Your task to perform on an android device: check google app version Image 0: 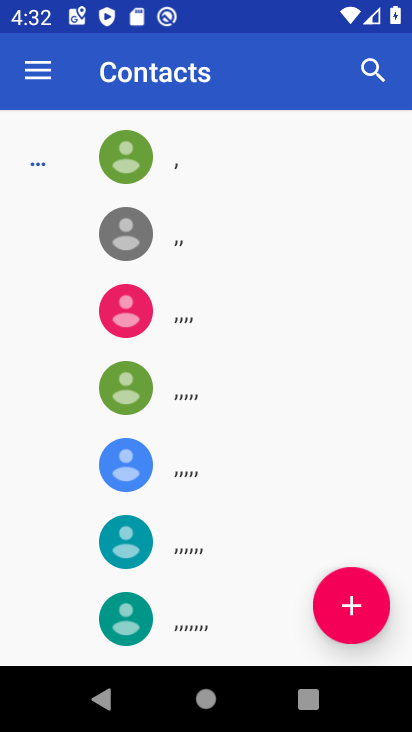
Step 0: press back button
Your task to perform on an android device: check google app version Image 1: 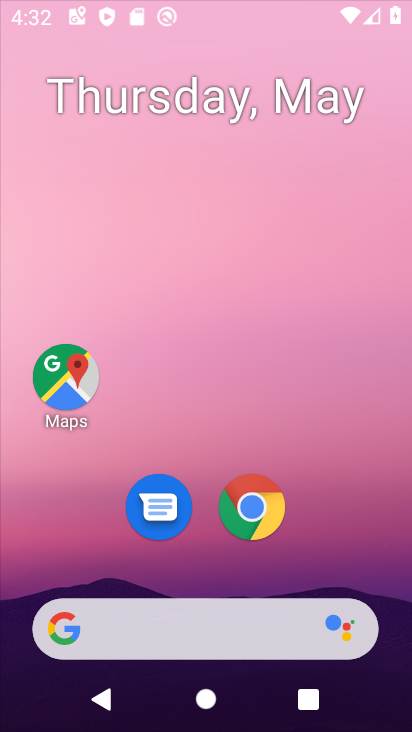
Step 1: click (166, 70)
Your task to perform on an android device: check google app version Image 2: 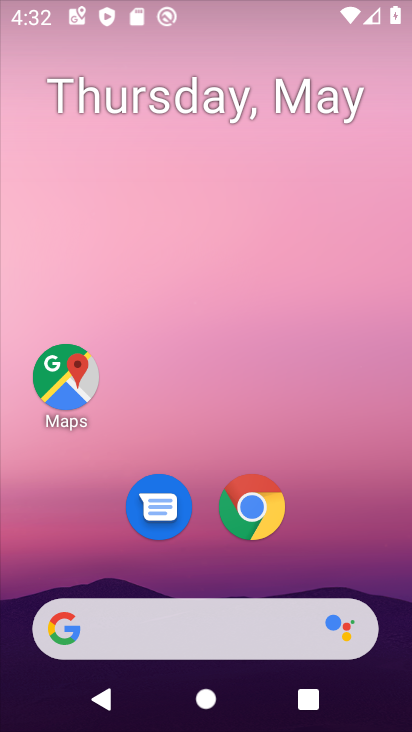
Step 2: click (166, 70)
Your task to perform on an android device: check google app version Image 3: 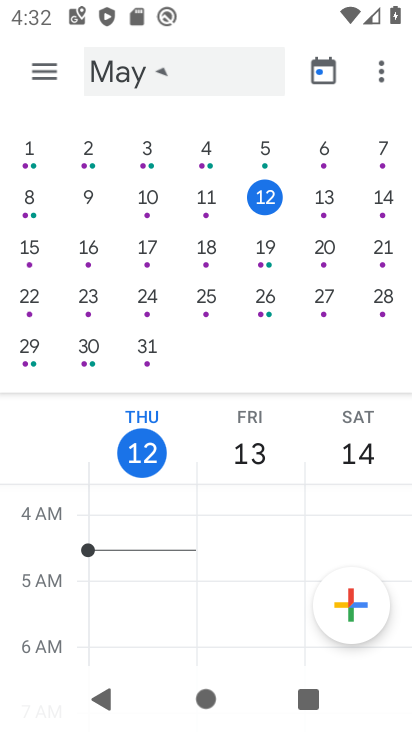
Step 3: click (166, 70)
Your task to perform on an android device: check google app version Image 4: 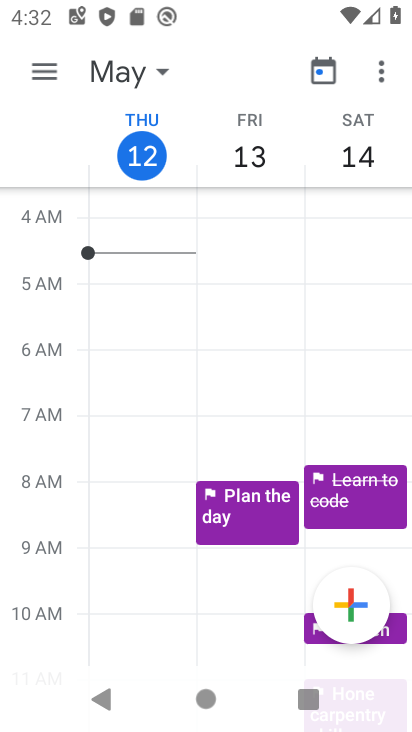
Step 4: press home button
Your task to perform on an android device: check google app version Image 5: 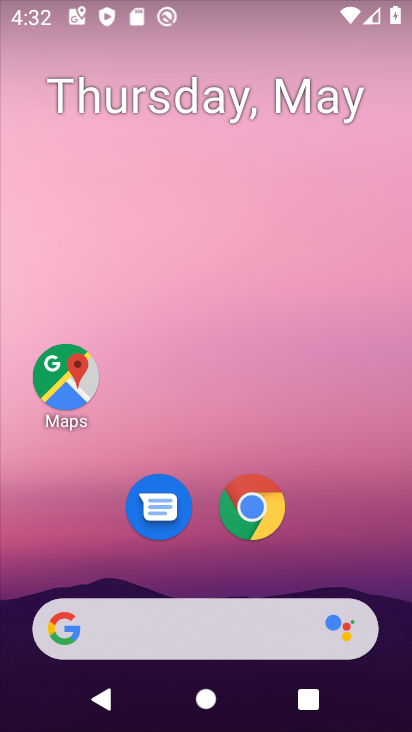
Step 5: drag from (241, 415) to (146, 137)
Your task to perform on an android device: check google app version Image 6: 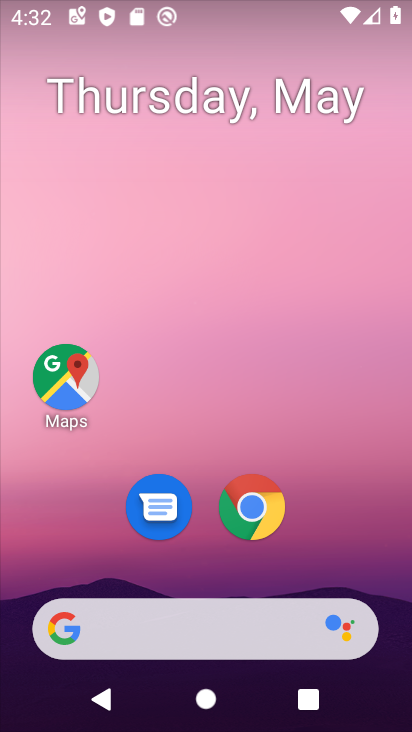
Step 6: press back button
Your task to perform on an android device: check google app version Image 7: 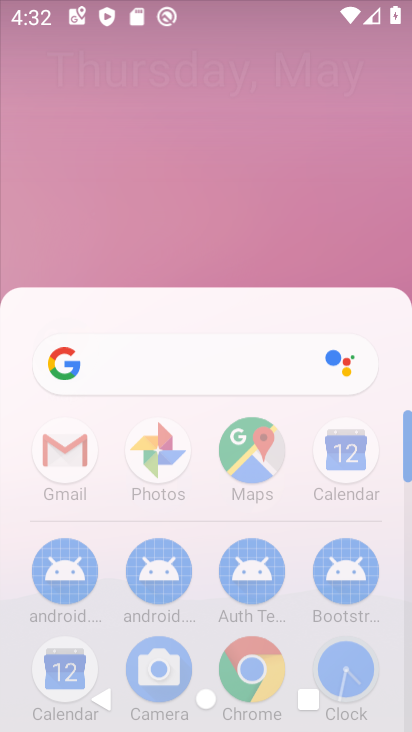
Step 7: drag from (190, 209) to (149, 126)
Your task to perform on an android device: check google app version Image 8: 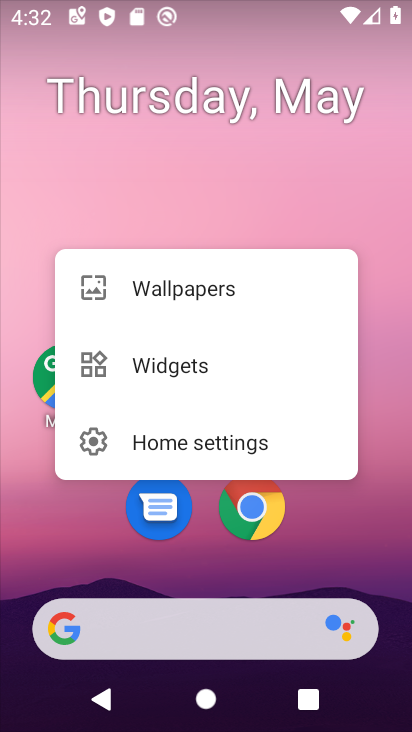
Step 8: drag from (261, 407) to (114, 3)
Your task to perform on an android device: check google app version Image 9: 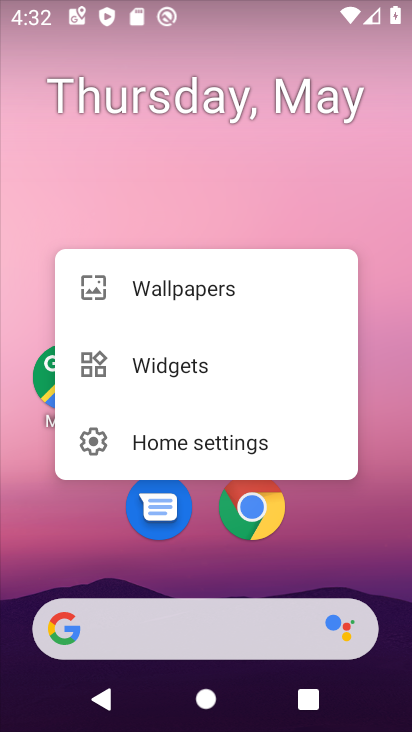
Step 9: drag from (357, 497) to (312, 158)
Your task to perform on an android device: check google app version Image 10: 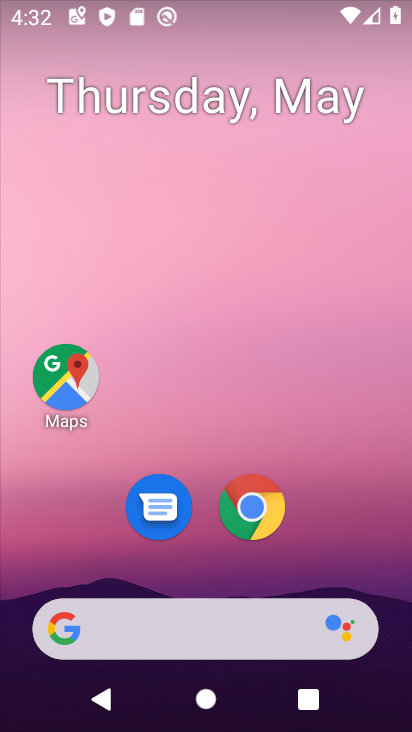
Step 10: drag from (374, 471) to (115, 62)
Your task to perform on an android device: check google app version Image 11: 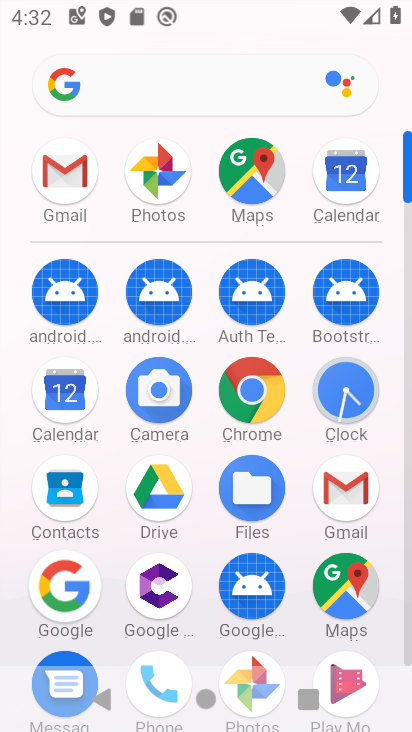
Step 11: drag from (229, 415) to (139, 82)
Your task to perform on an android device: check google app version Image 12: 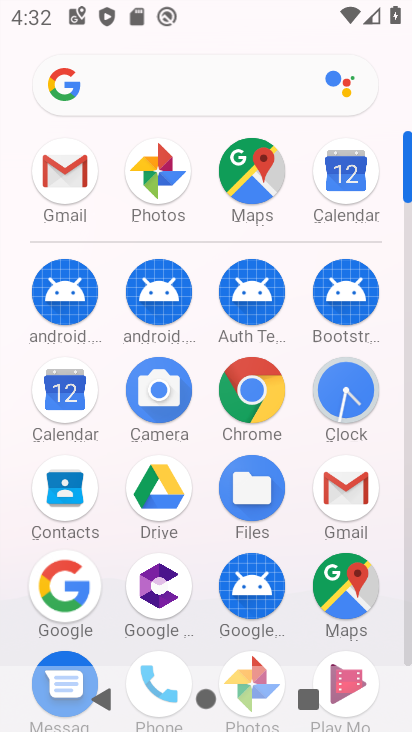
Step 12: drag from (271, 501) to (144, 199)
Your task to perform on an android device: check google app version Image 13: 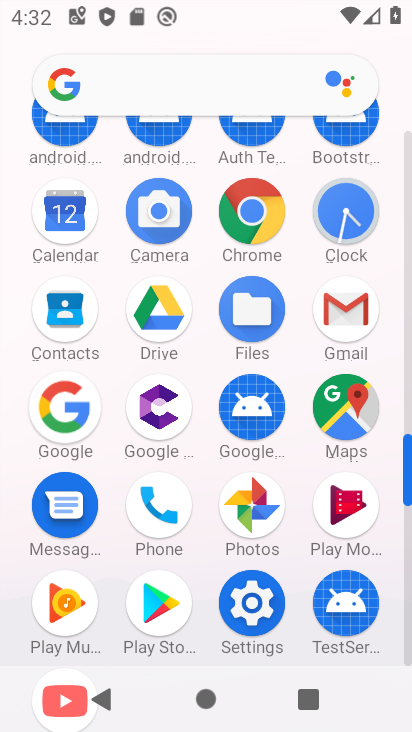
Step 13: click (63, 415)
Your task to perform on an android device: check google app version Image 14: 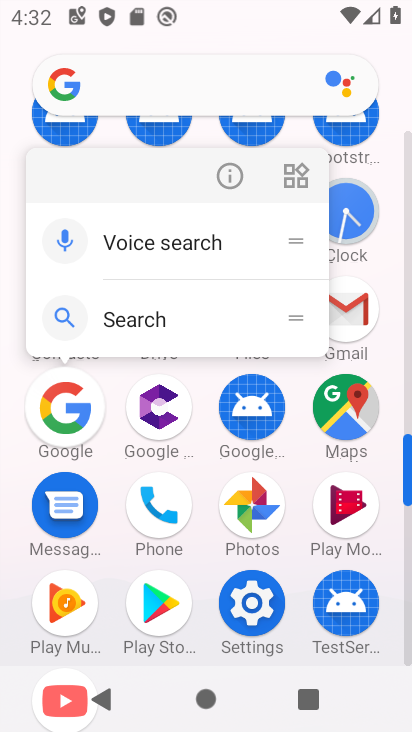
Step 14: click (61, 404)
Your task to perform on an android device: check google app version Image 15: 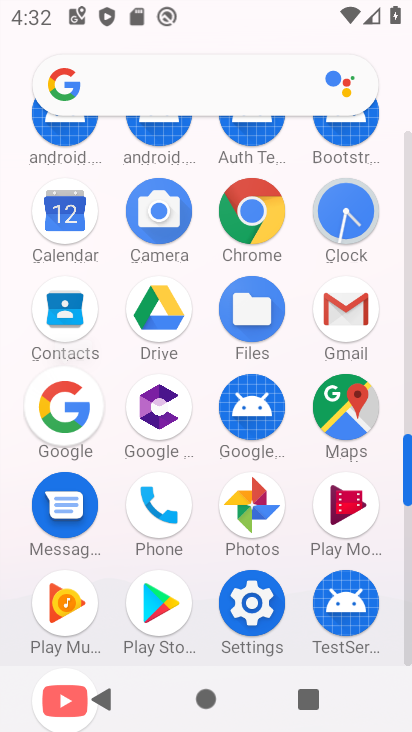
Step 15: click (63, 406)
Your task to perform on an android device: check google app version Image 16: 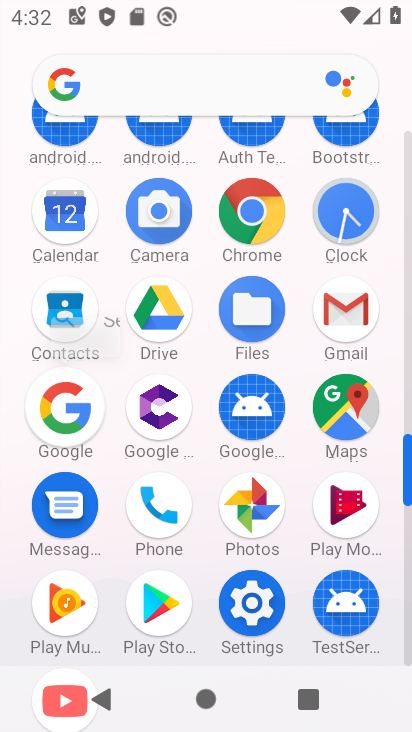
Step 16: click (64, 407)
Your task to perform on an android device: check google app version Image 17: 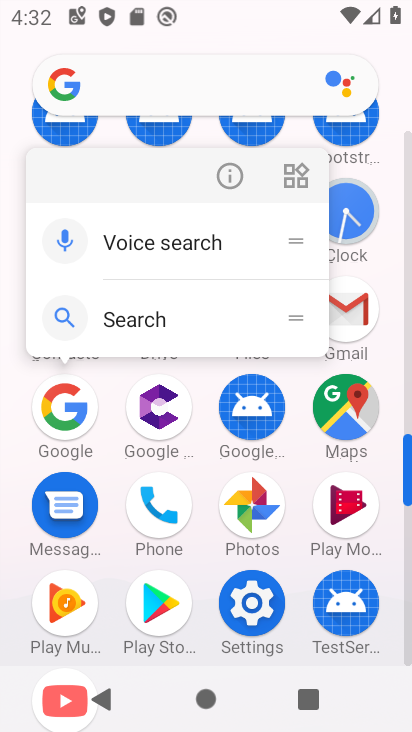
Step 17: click (67, 410)
Your task to perform on an android device: check google app version Image 18: 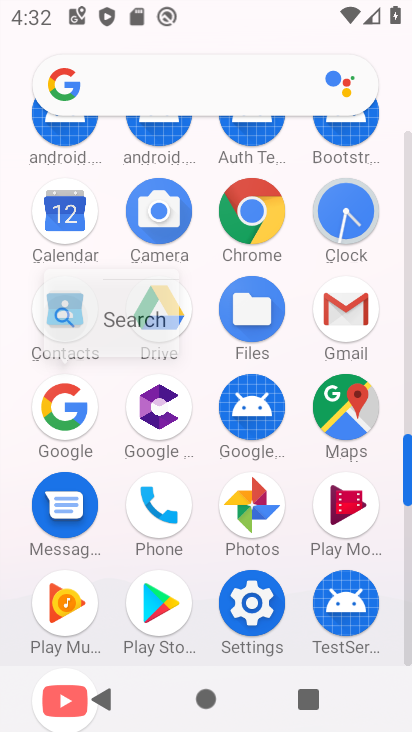
Step 18: click (72, 407)
Your task to perform on an android device: check google app version Image 19: 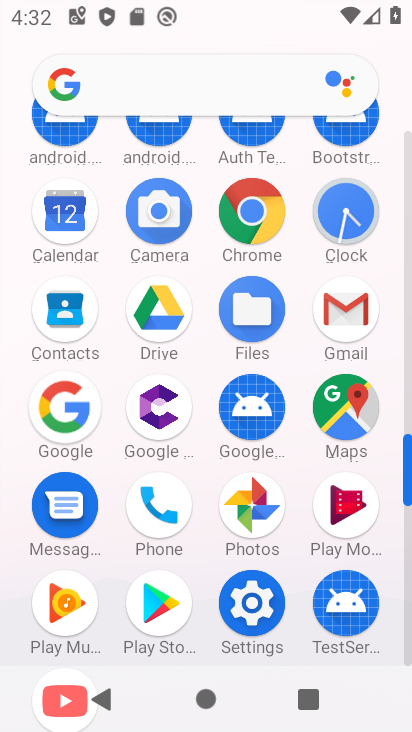
Step 19: click (73, 407)
Your task to perform on an android device: check google app version Image 20: 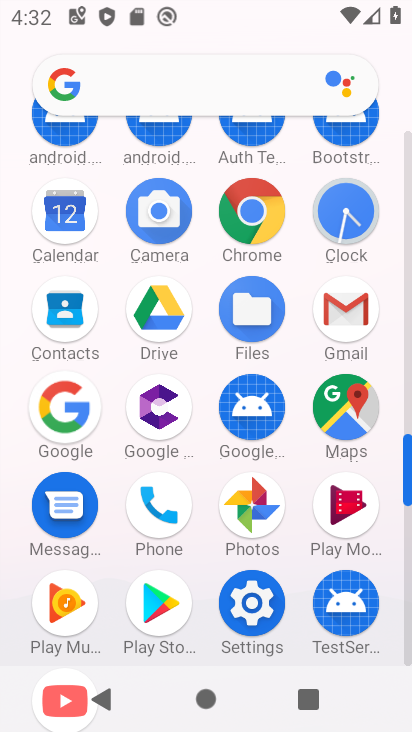
Step 20: click (74, 410)
Your task to perform on an android device: check google app version Image 21: 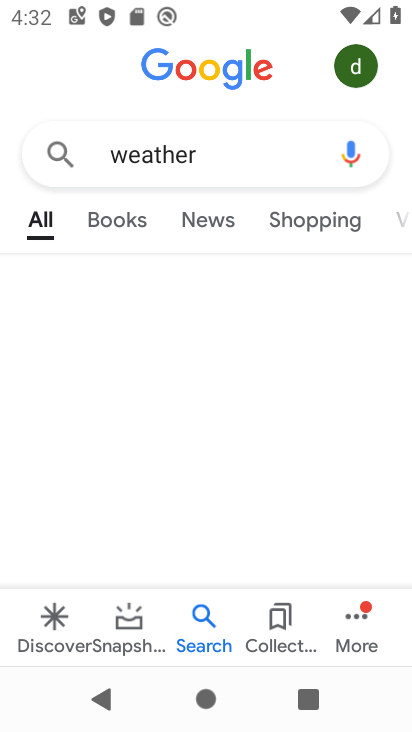
Step 21: click (75, 410)
Your task to perform on an android device: check google app version Image 22: 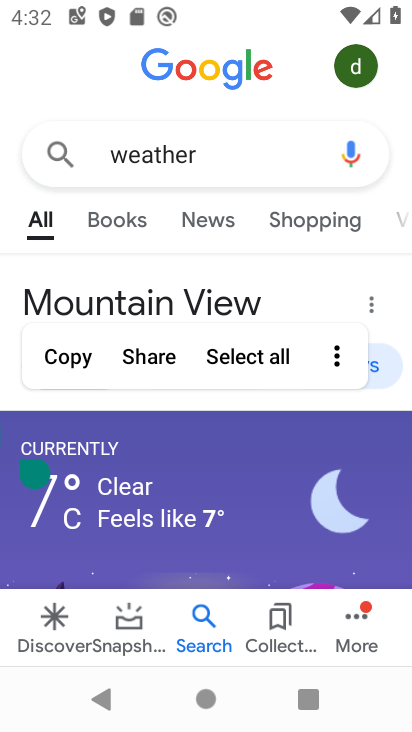
Step 22: click (353, 641)
Your task to perform on an android device: check google app version Image 23: 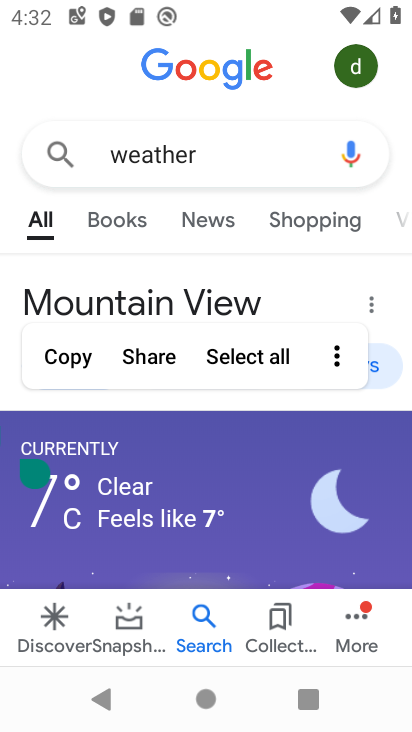
Step 23: click (349, 629)
Your task to perform on an android device: check google app version Image 24: 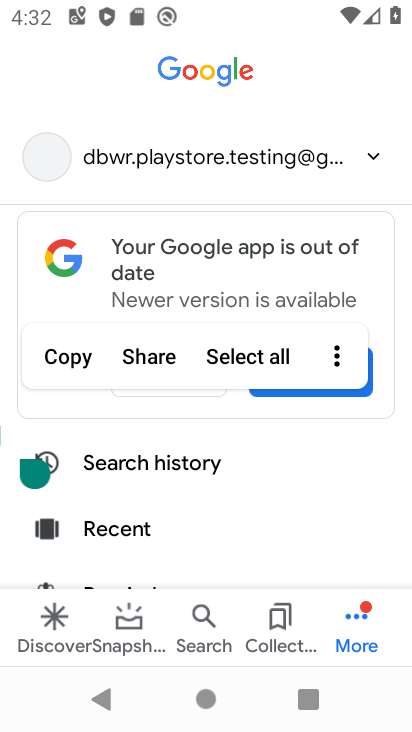
Step 24: click (350, 633)
Your task to perform on an android device: check google app version Image 25: 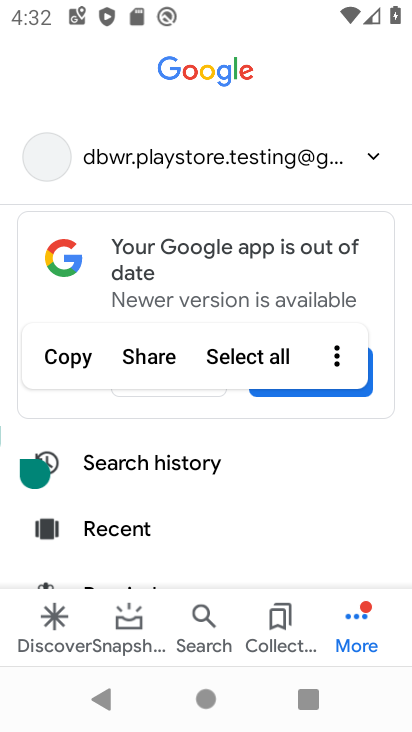
Step 25: click (348, 632)
Your task to perform on an android device: check google app version Image 26: 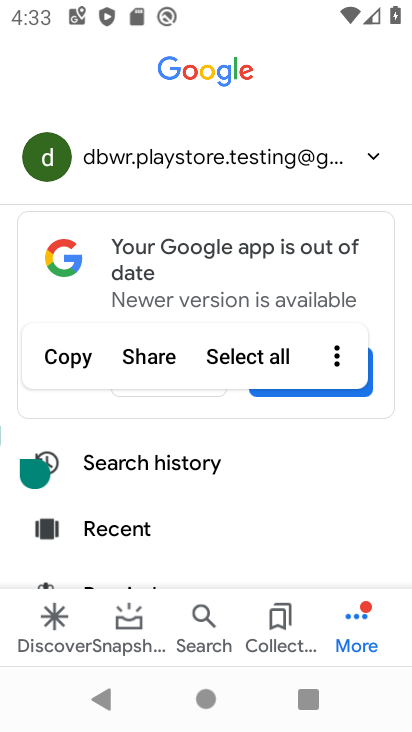
Step 26: click (343, 626)
Your task to perform on an android device: check google app version Image 27: 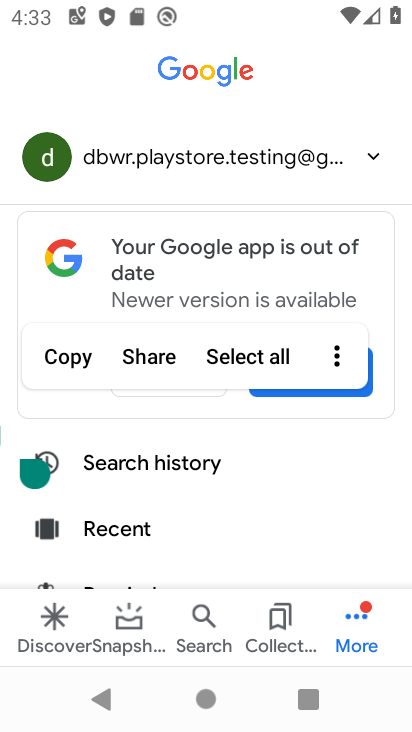
Step 27: click (348, 601)
Your task to perform on an android device: check google app version Image 28: 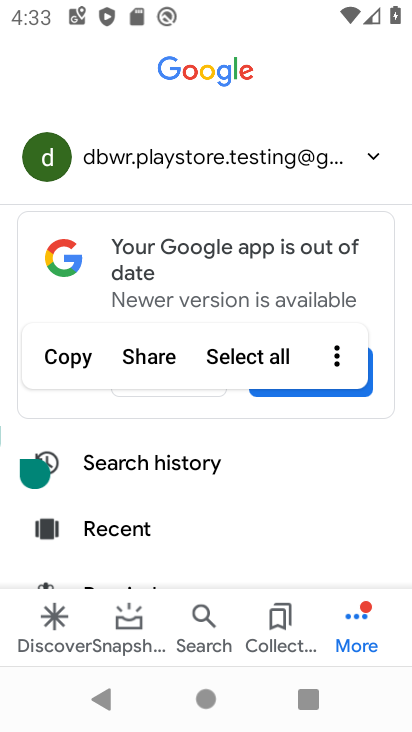
Step 28: click (356, 606)
Your task to perform on an android device: check google app version Image 29: 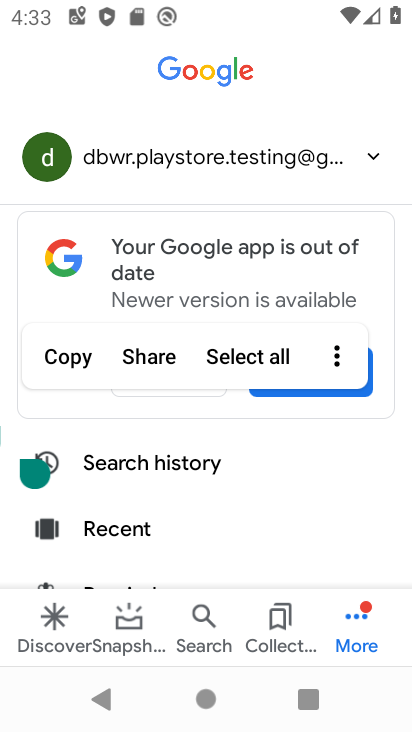
Step 29: drag from (212, 527) to (122, 35)
Your task to perform on an android device: check google app version Image 30: 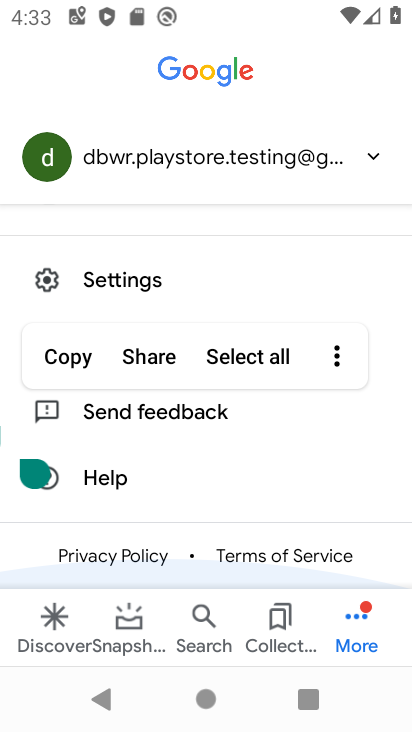
Step 30: drag from (154, 311) to (163, 22)
Your task to perform on an android device: check google app version Image 31: 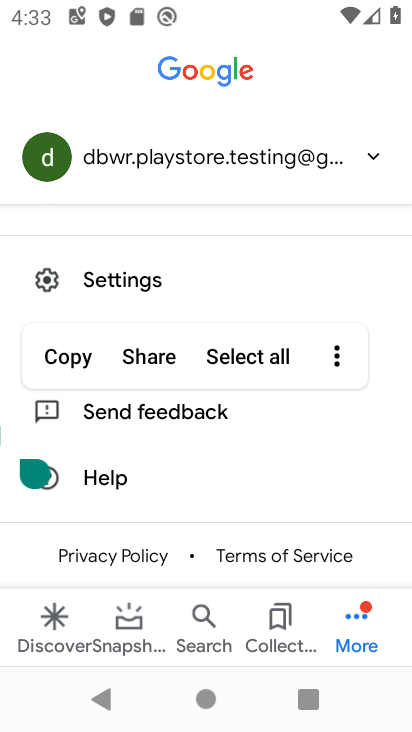
Step 31: click (147, 418)
Your task to perform on an android device: check google app version Image 32: 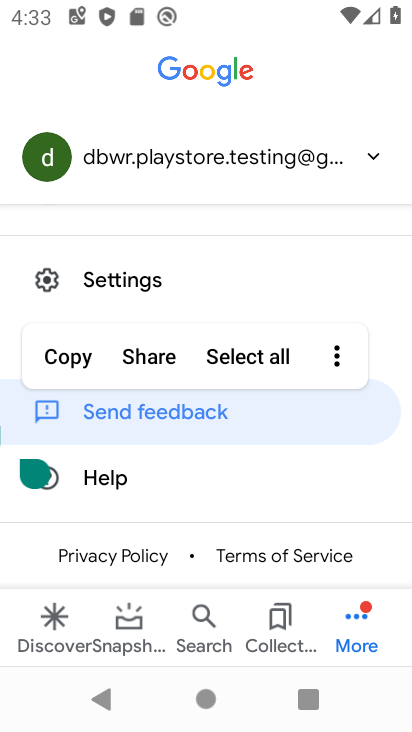
Step 32: click (113, 283)
Your task to perform on an android device: check google app version Image 33: 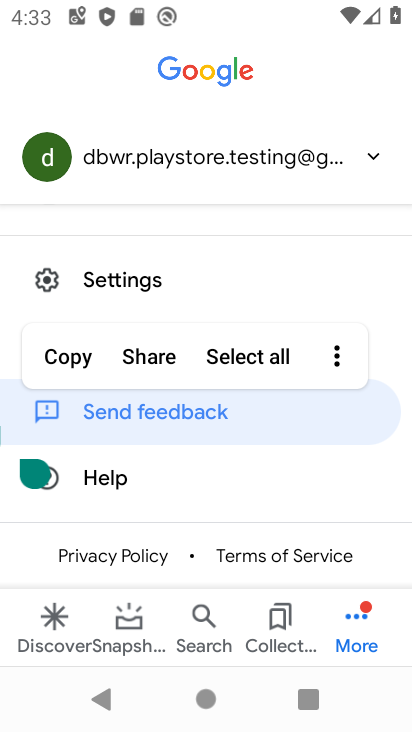
Step 33: click (113, 281)
Your task to perform on an android device: check google app version Image 34: 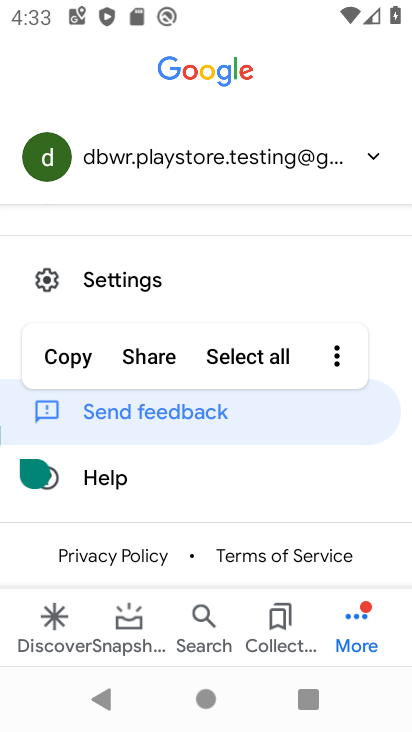
Step 34: click (112, 275)
Your task to perform on an android device: check google app version Image 35: 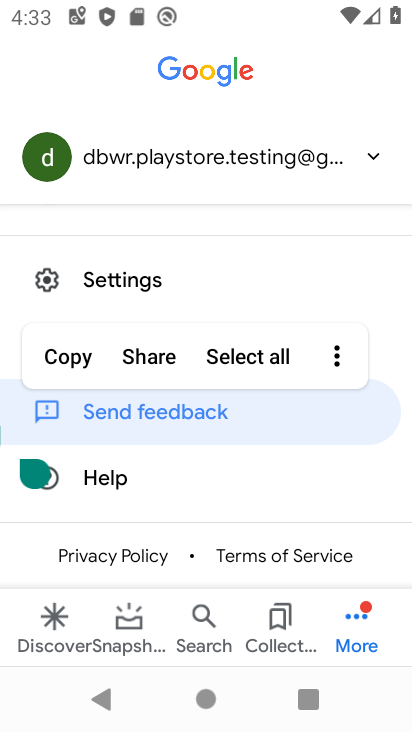
Step 35: click (112, 275)
Your task to perform on an android device: check google app version Image 36: 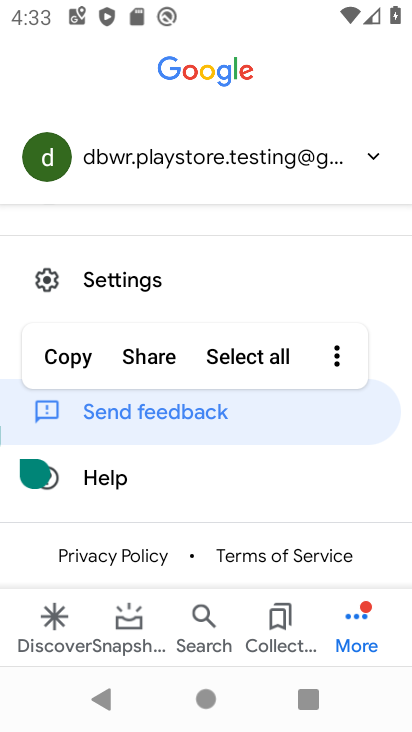
Step 36: click (112, 276)
Your task to perform on an android device: check google app version Image 37: 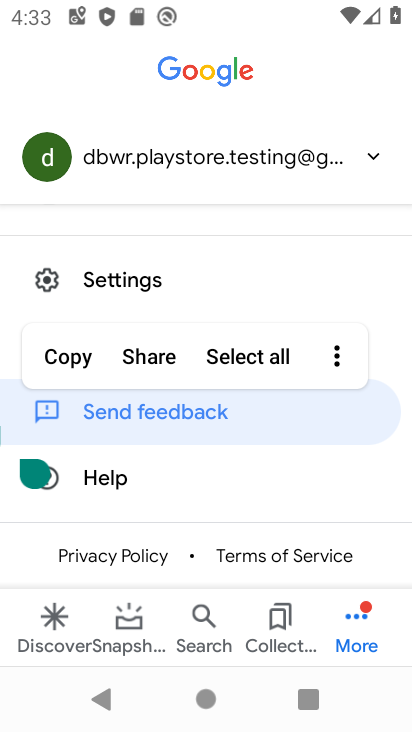
Step 37: click (113, 277)
Your task to perform on an android device: check google app version Image 38: 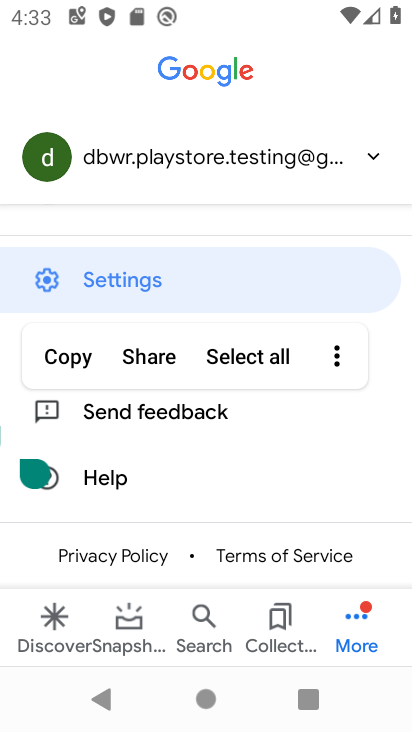
Step 38: click (111, 283)
Your task to perform on an android device: check google app version Image 39: 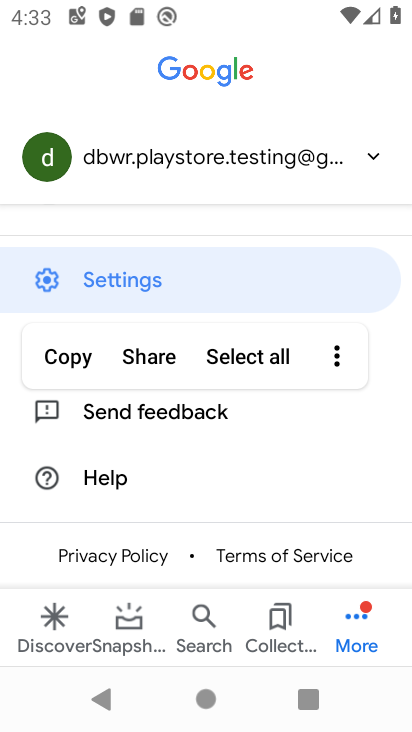
Step 39: click (112, 262)
Your task to perform on an android device: check google app version Image 40: 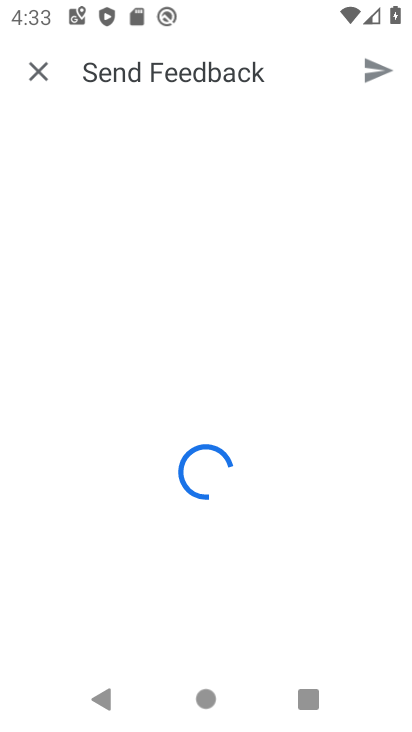
Step 40: task complete